Your task to perform on an android device: change notification settings in the gmail app Image 0: 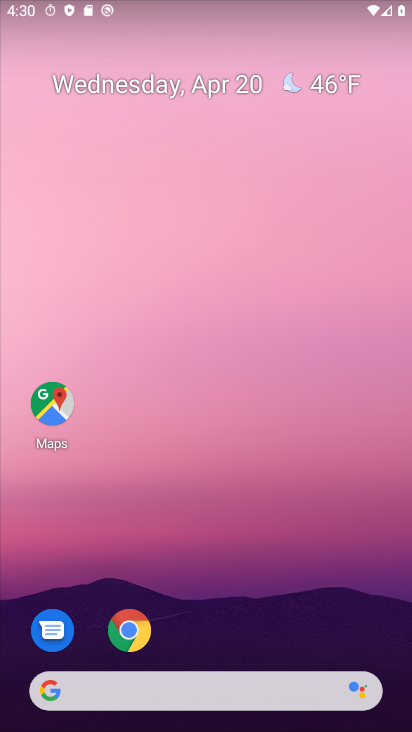
Step 0: drag from (202, 673) to (240, 234)
Your task to perform on an android device: change notification settings in the gmail app Image 1: 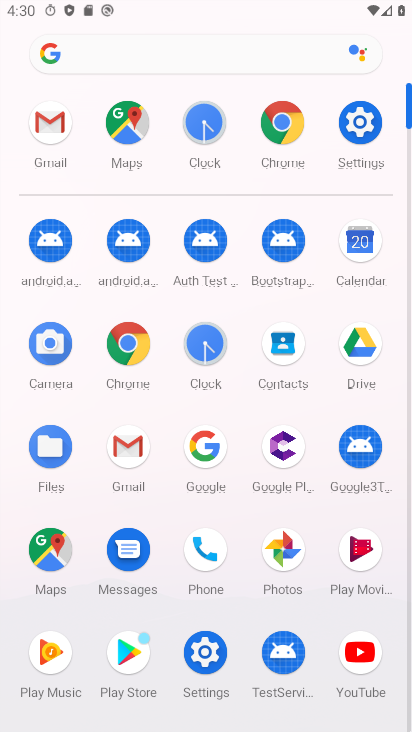
Step 1: click (126, 453)
Your task to perform on an android device: change notification settings in the gmail app Image 2: 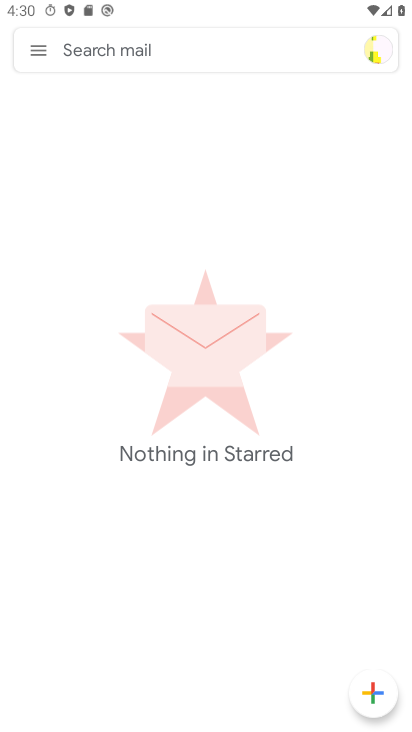
Step 2: click (35, 44)
Your task to perform on an android device: change notification settings in the gmail app Image 3: 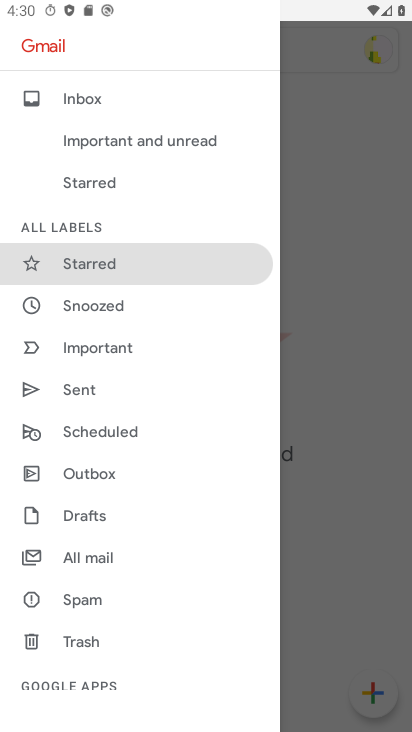
Step 3: drag from (71, 667) to (54, 309)
Your task to perform on an android device: change notification settings in the gmail app Image 4: 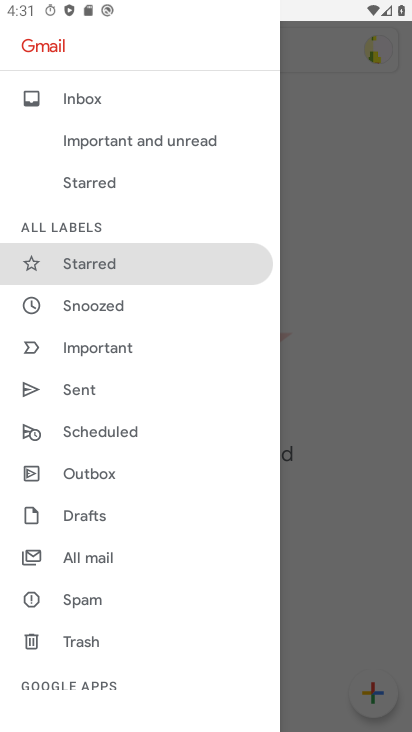
Step 4: drag from (125, 570) to (188, 340)
Your task to perform on an android device: change notification settings in the gmail app Image 5: 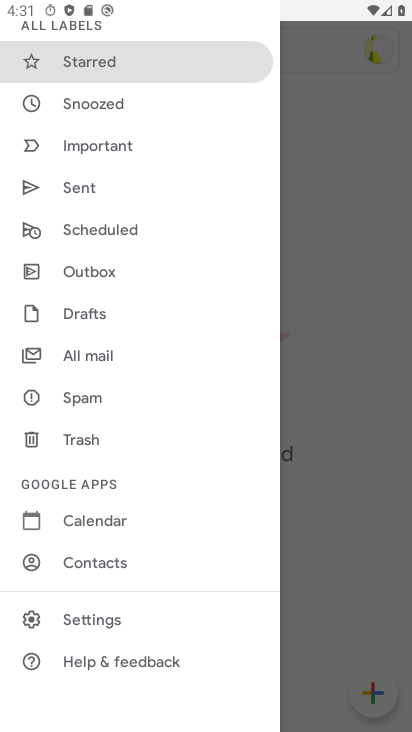
Step 5: click (91, 612)
Your task to perform on an android device: change notification settings in the gmail app Image 6: 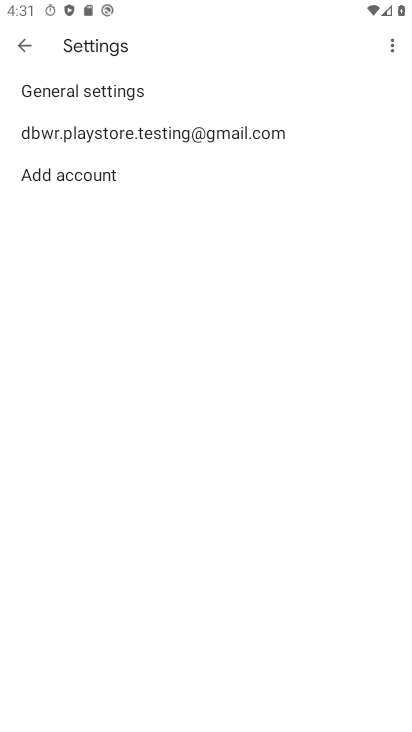
Step 6: click (88, 87)
Your task to perform on an android device: change notification settings in the gmail app Image 7: 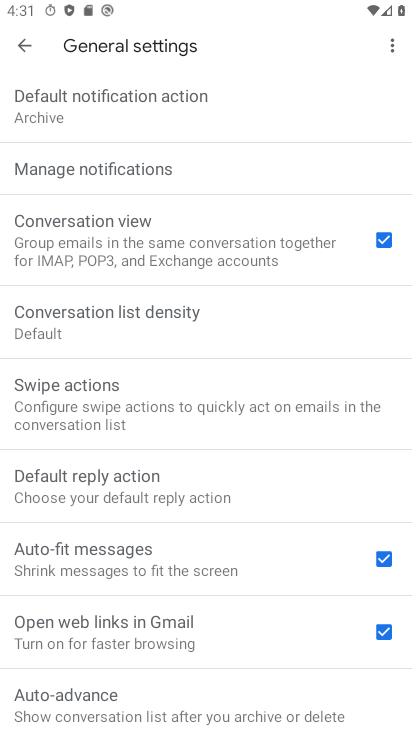
Step 7: click (75, 170)
Your task to perform on an android device: change notification settings in the gmail app Image 8: 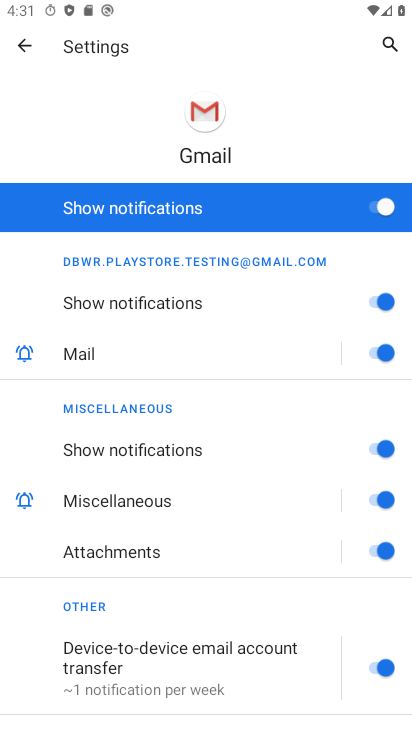
Step 8: click (371, 206)
Your task to perform on an android device: change notification settings in the gmail app Image 9: 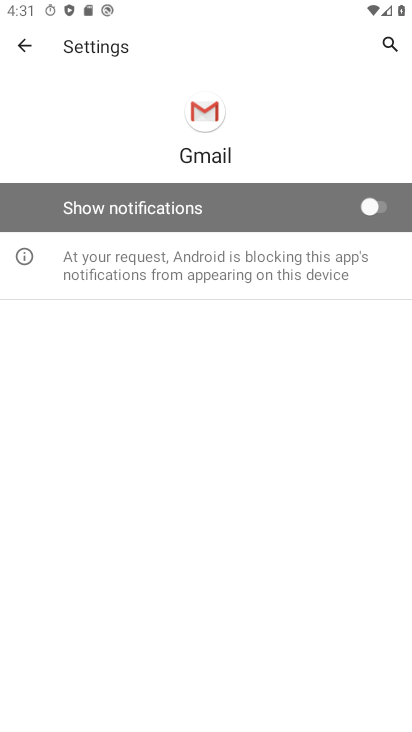
Step 9: task complete